Your task to perform on an android device: remove spam from my inbox in the gmail app Image 0: 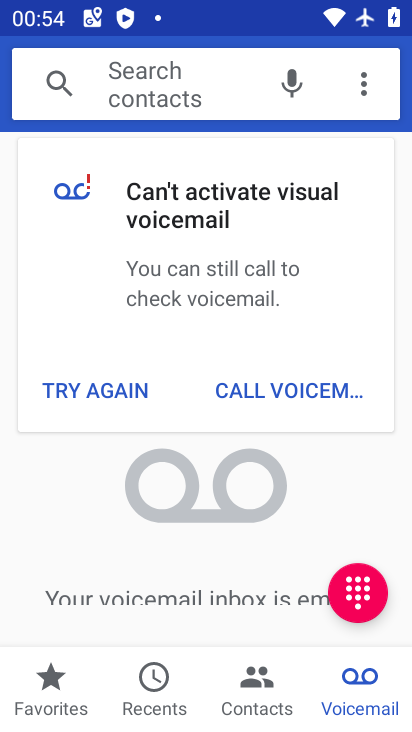
Step 0: press home button
Your task to perform on an android device: remove spam from my inbox in the gmail app Image 1: 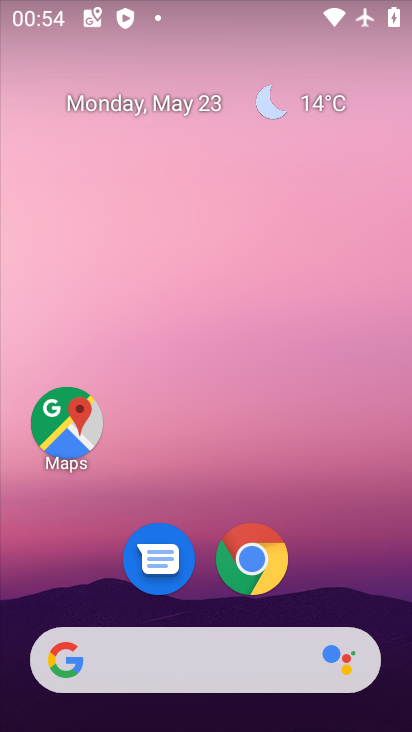
Step 1: drag from (358, 617) to (364, 7)
Your task to perform on an android device: remove spam from my inbox in the gmail app Image 2: 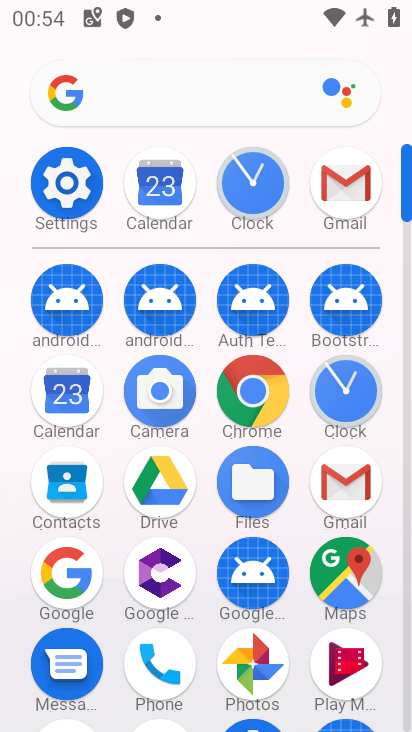
Step 2: click (354, 197)
Your task to perform on an android device: remove spam from my inbox in the gmail app Image 3: 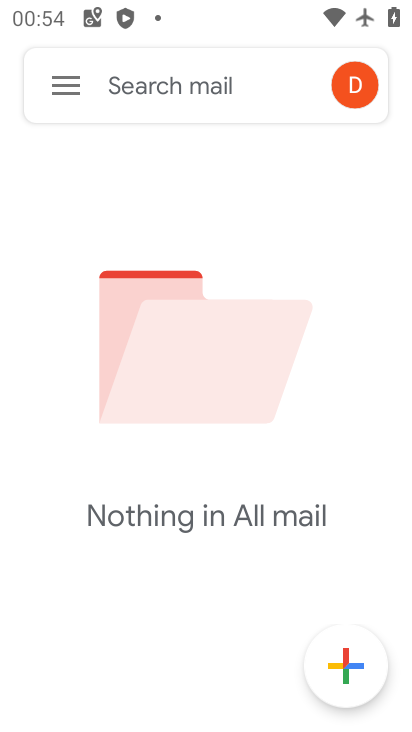
Step 3: click (62, 81)
Your task to perform on an android device: remove spam from my inbox in the gmail app Image 4: 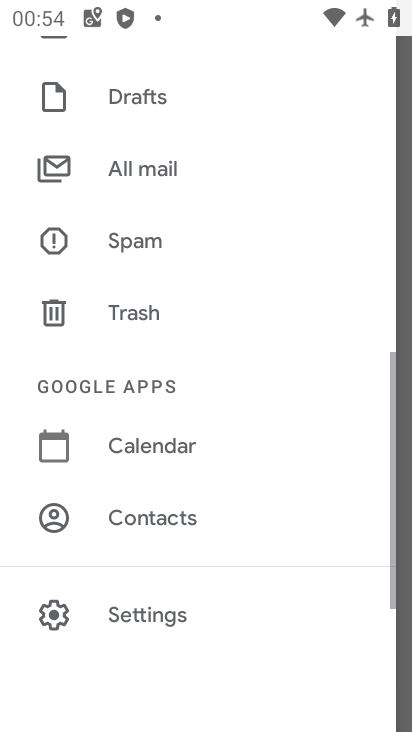
Step 4: click (132, 246)
Your task to perform on an android device: remove spam from my inbox in the gmail app Image 5: 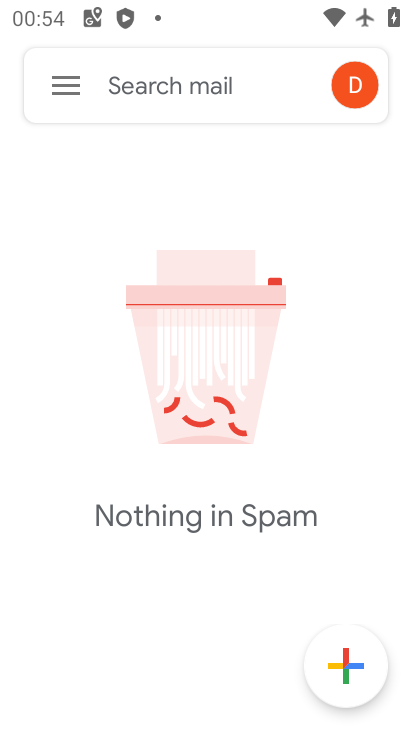
Step 5: task complete